Your task to perform on an android device: change the clock display to show seconds Image 0: 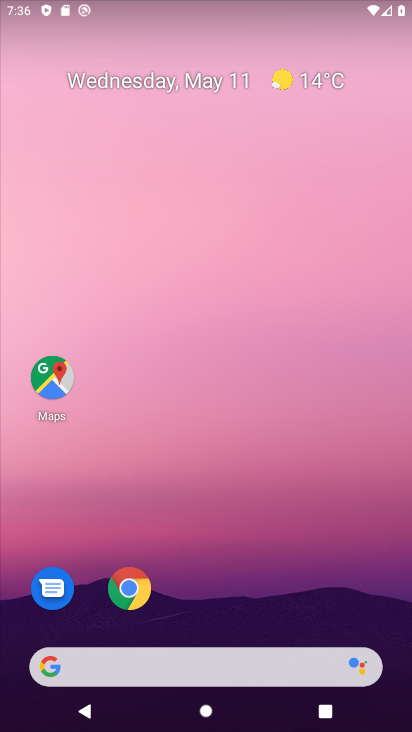
Step 0: drag from (270, 697) to (263, 63)
Your task to perform on an android device: change the clock display to show seconds Image 1: 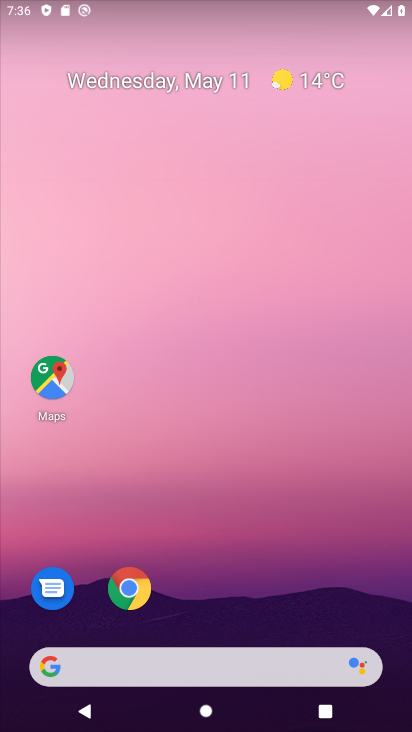
Step 1: drag from (272, 718) to (280, 63)
Your task to perform on an android device: change the clock display to show seconds Image 2: 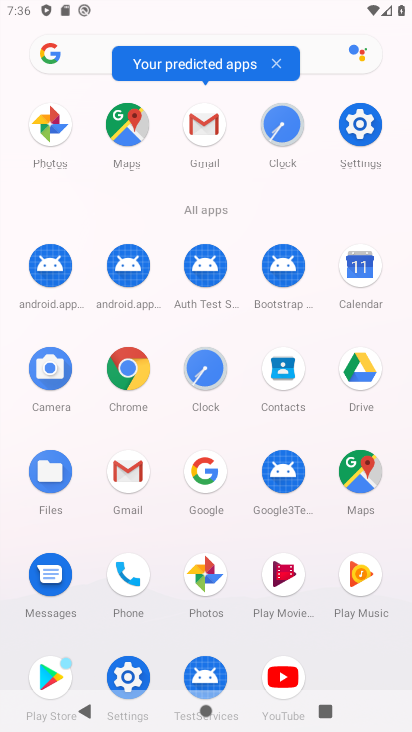
Step 2: click (194, 378)
Your task to perform on an android device: change the clock display to show seconds Image 3: 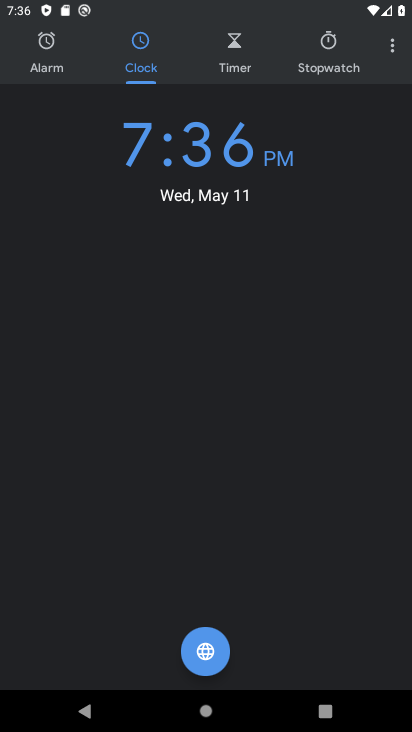
Step 3: click (396, 46)
Your task to perform on an android device: change the clock display to show seconds Image 4: 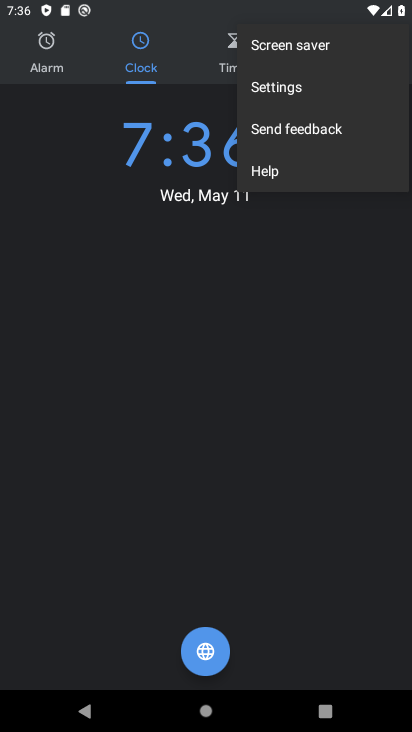
Step 4: click (300, 90)
Your task to perform on an android device: change the clock display to show seconds Image 5: 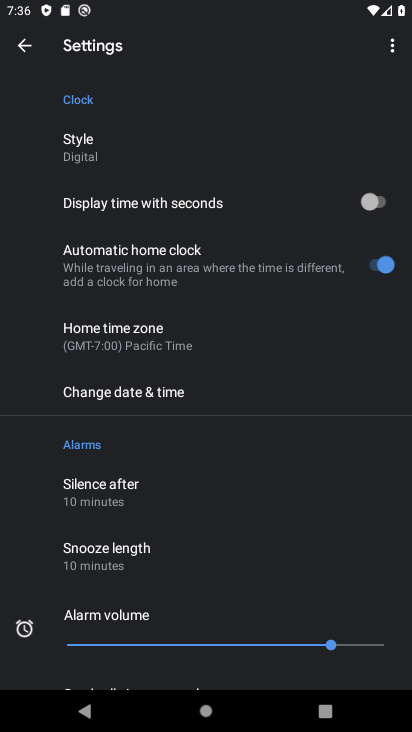
Step 5: click (380, 202)
Your task to perform on an android device: change the clock display to show seconds Image 6: 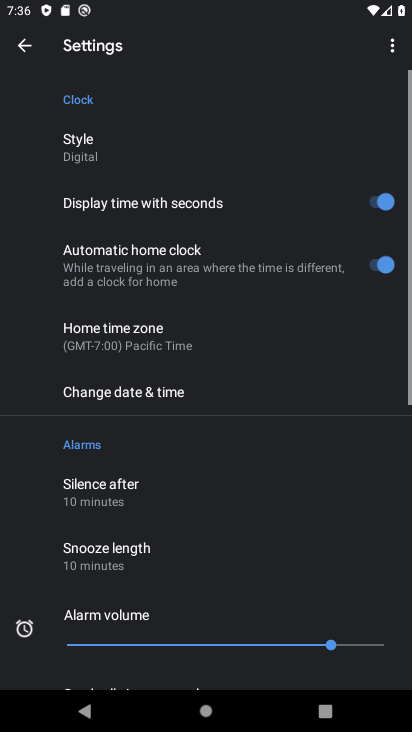
Step 6: task complete